Your task to perform on an android device: Open Yahoo.com Image 0: 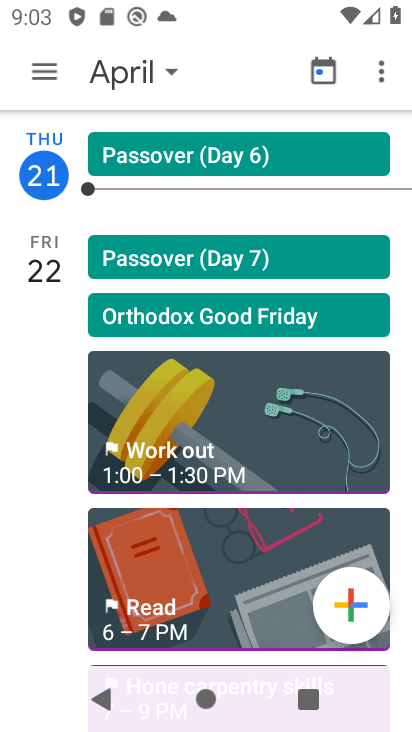
Step 0: press home button
Your task to perform on an android device: Open Yahoo.com Image 1: 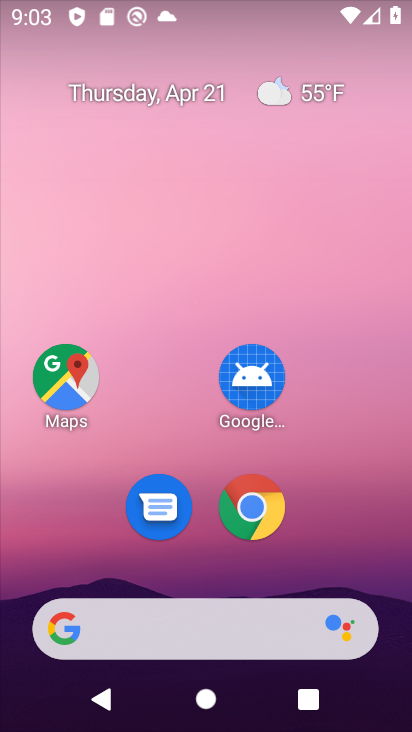
Step 1: drag from (235, 422) to (244, 186)
Your task to perform on an android device: Open Yahoo.com Image 2: 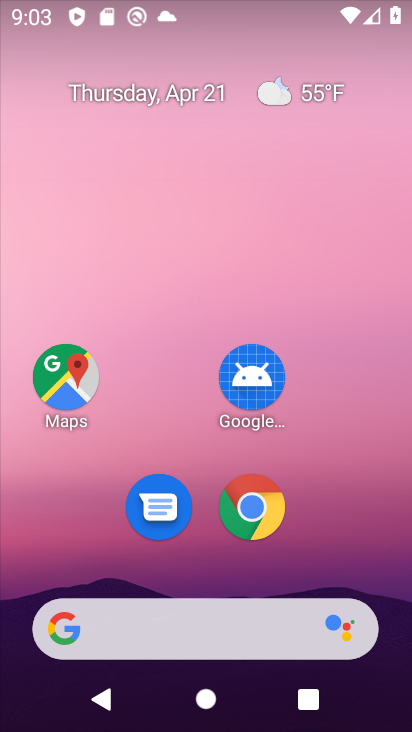
Step 2: drag from (221, 588) to (266, 241)
Your task to perform on an android device: Open Yahoo.com Image 3: 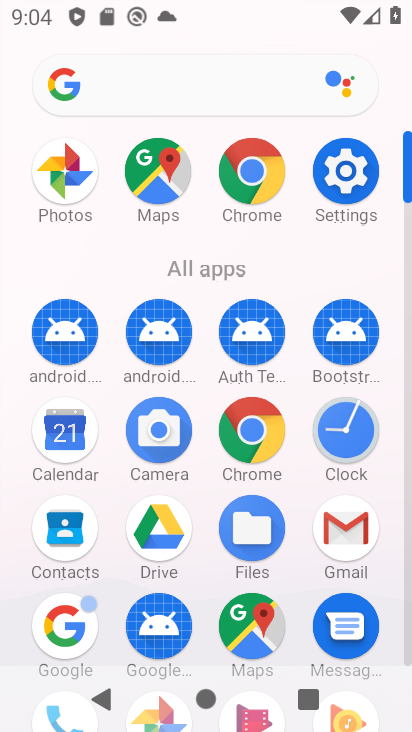
Step 3: click (249, 173)
Your task to perform on an android device: Open Yahoo.com Image 4: 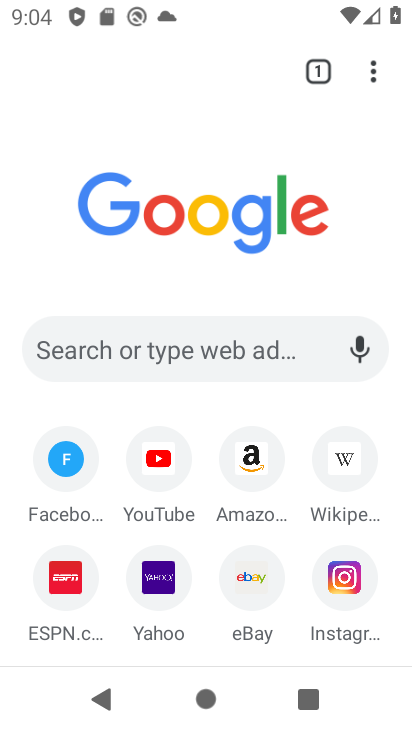
Step 4: click (157, 580)
Your task to perform on an android device: Open Yahoo.com Image 5: 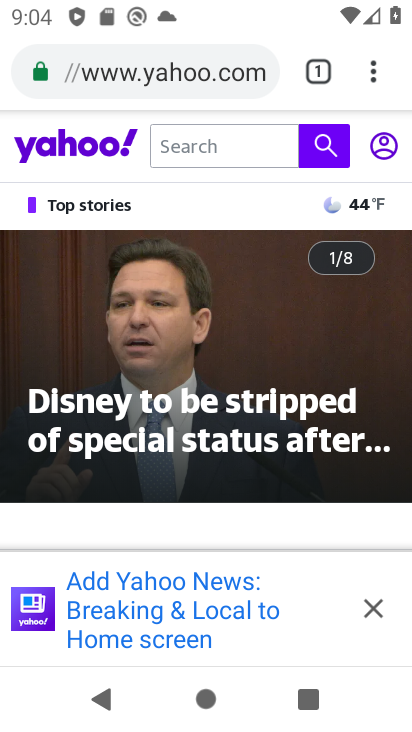
Step 5: click (365, 608)
Your task to perform on an android device: Open Yahoo.com Image 6: 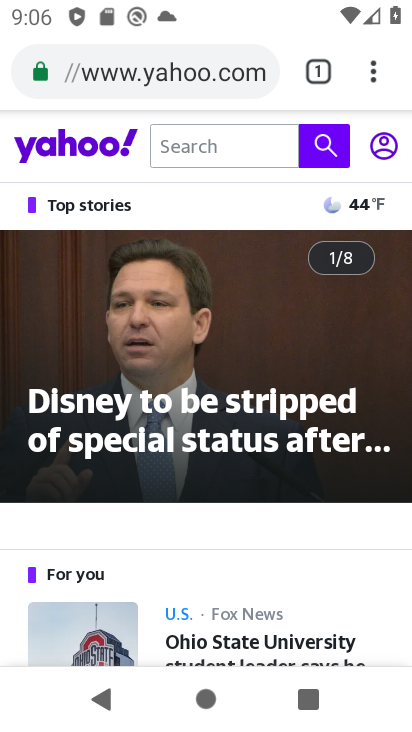
Step 6: task complete